Your task to perform on an android device: delete location history Image 0: 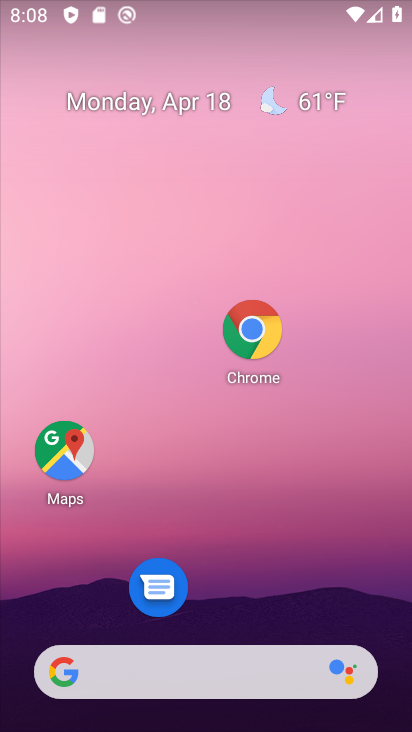
Step 0: drag from (145, 457) to (139, 243)
Your task to perform on an android device: delete location history Image 1: 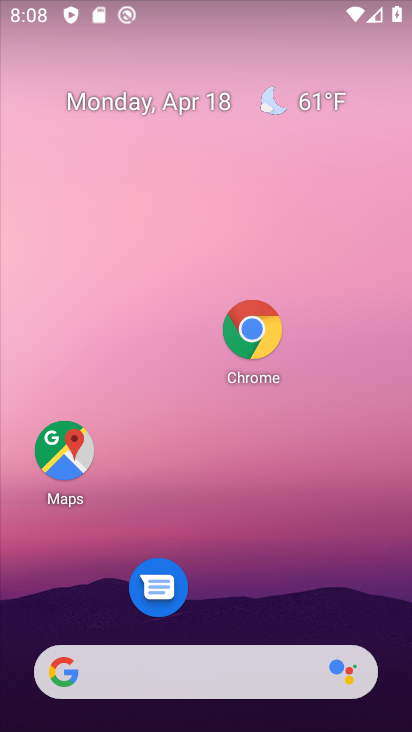
Step 1: drag from (199, 441) to (220, 219)
Your task to perform on an android device: delete location history Image 2: 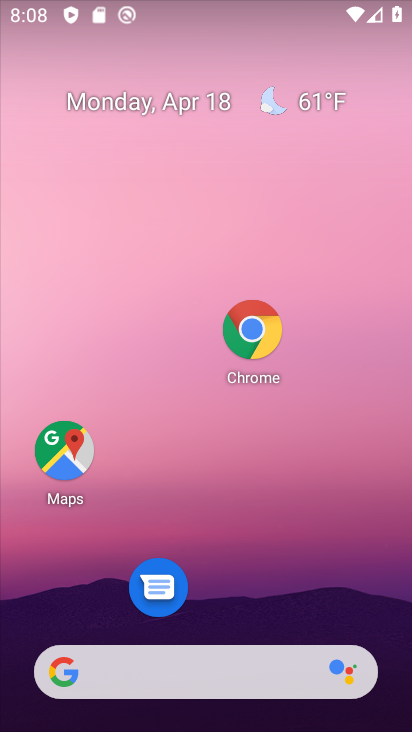
Step 2: drag from (222, 426) to (242, 281)
Your task to perform on an android device: delete location history Image 3: 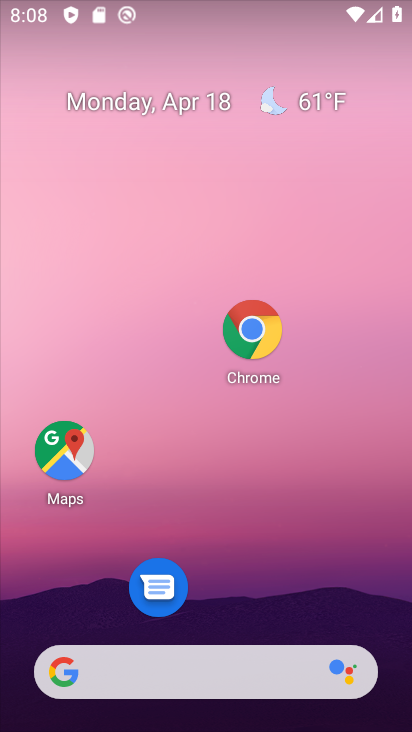
Step 3: drag from (245, 539) to (272, 236)
Your task to perform on an android device: delete location history Image 4: 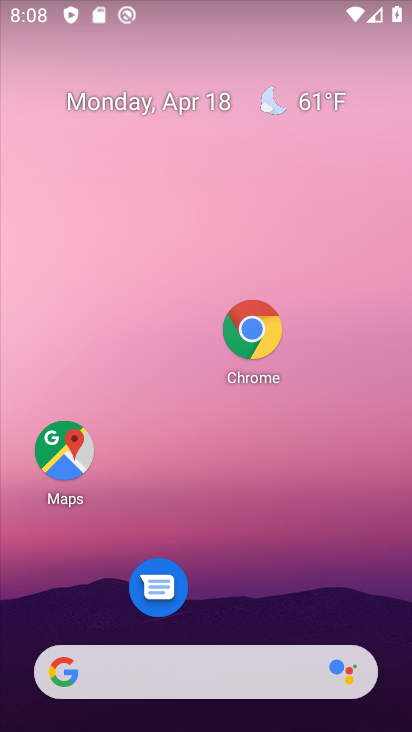
Step 4: drag from (254, 417) to (266, 290)
Your task to perform on an android device: delete location history Image 5: 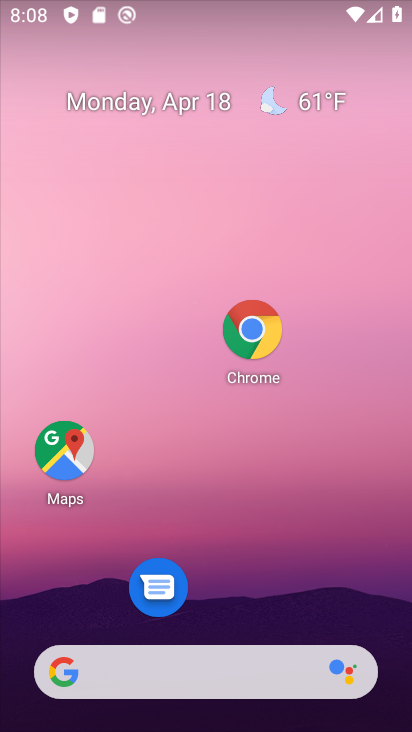
Step 5: drag from (242, 601) to (323, 51)
Your task to perform on an android device: delete location history Image 6: 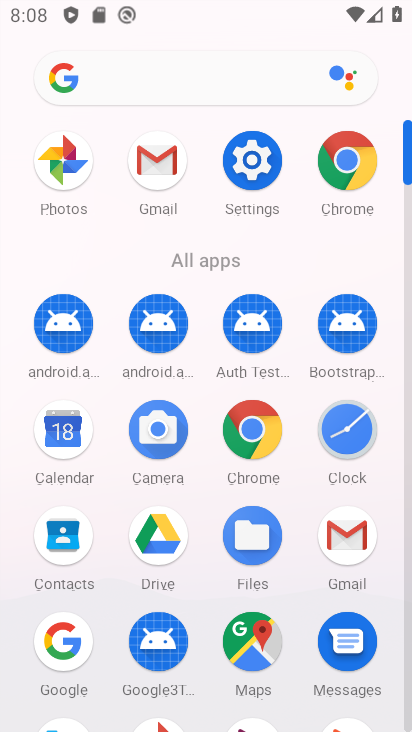
Step 6: click (253, 646)
Your task to perform on an android device: delete location history Image 7: 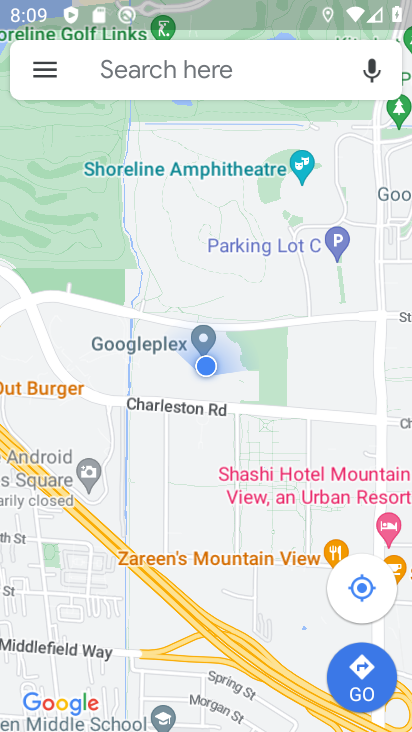
Step 7: click (28, 72)
Your task to perform on an android device: delete location history Image 8: 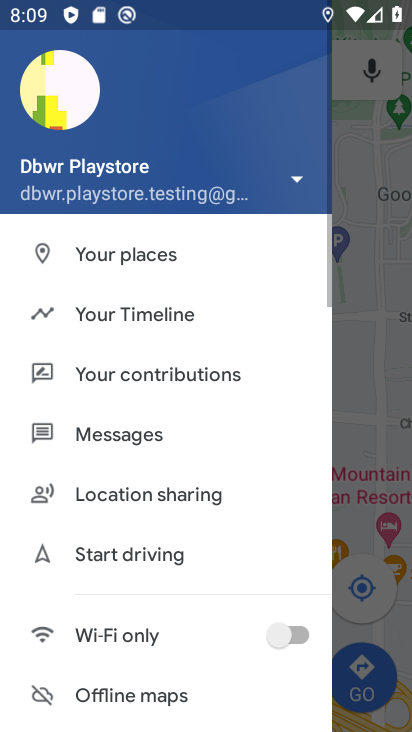
Step 8: click (117, 319)
Your task to perform on an android device: delete location history Image 9: 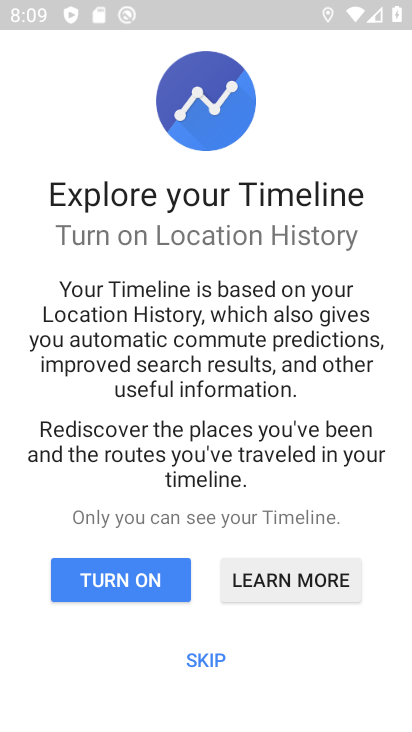
Step 9: click (201, 653)
Your task to perform on an android device: delete location history Image 10: 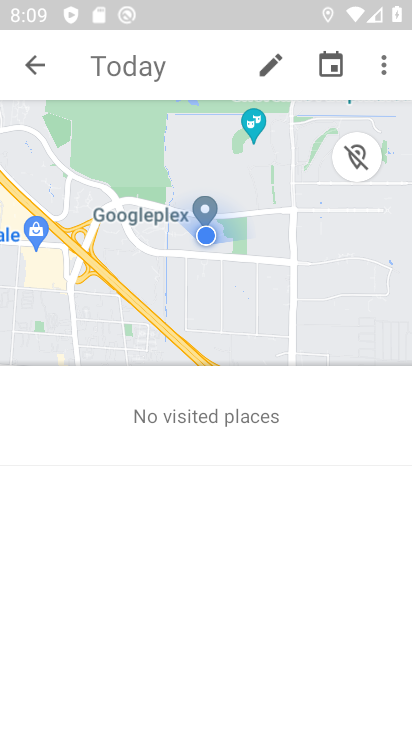
Step 10: click (387, 64)
Your task to perform on an android device: delete location history Image 11: 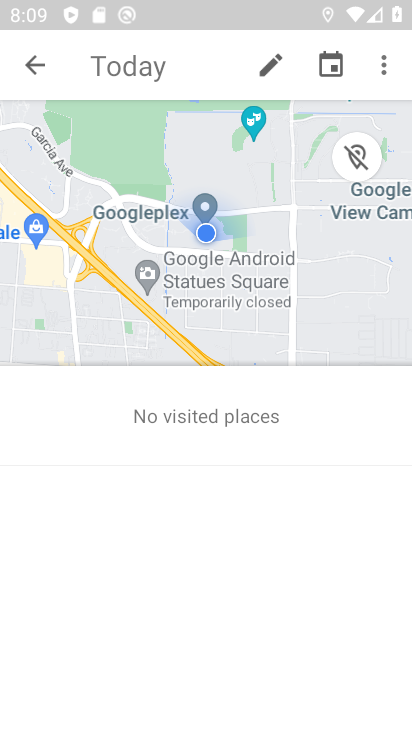
Step 11: click (368, 65)
Your task to perform on an android device: delete location history Image 12: 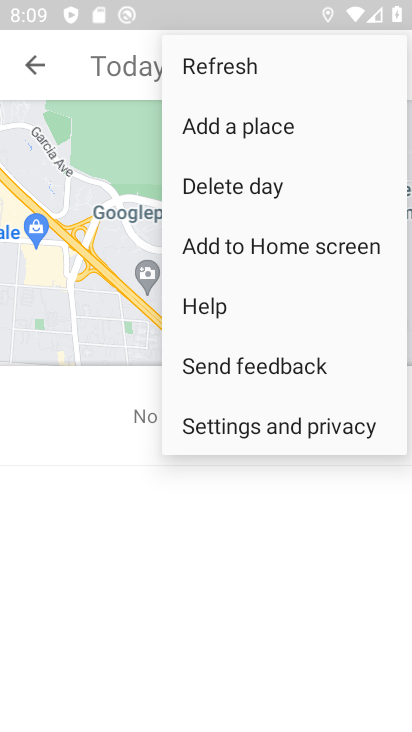
Step 12: click (266, 426)
Your task to perform on an android device: delete location history Image 13: 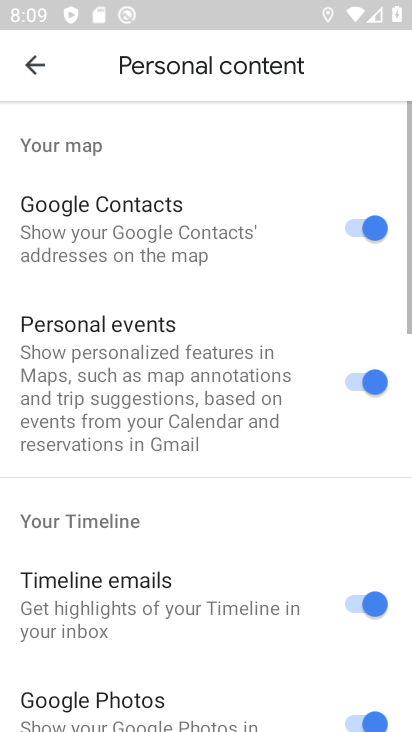
Step 13: drag from (200, 584) to (231, 67)
Your task to perform on an android device: delete location history Image 14: 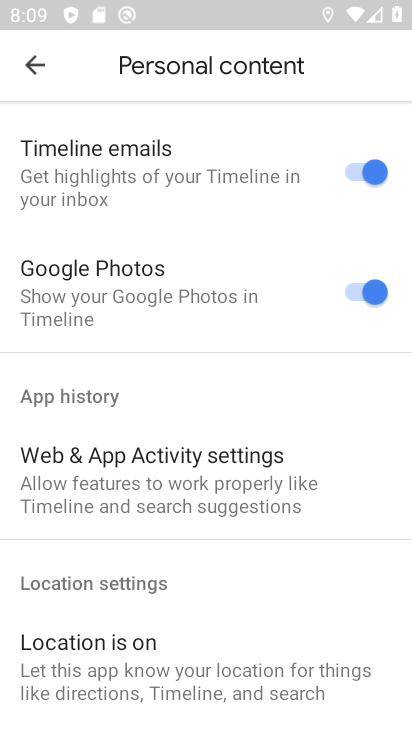
Step 14: drag from (159, 556) to (236, 127)
Your task to perform on an android device: delete location history Image 15: 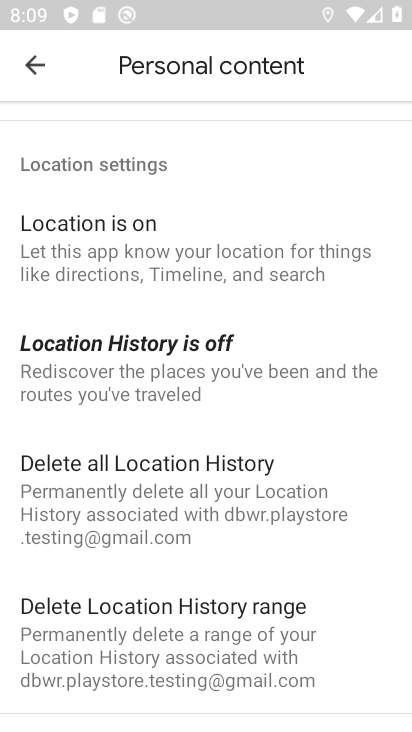
Step 15: click (200, 465)
Your task to perform on an android device: delete location history Image 16: 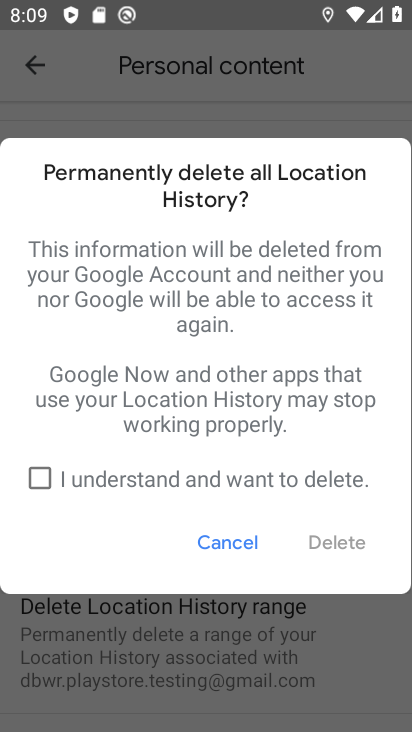
Step 16: click (36, 480)
Your task to perform on an android device: delete location history Image 17: 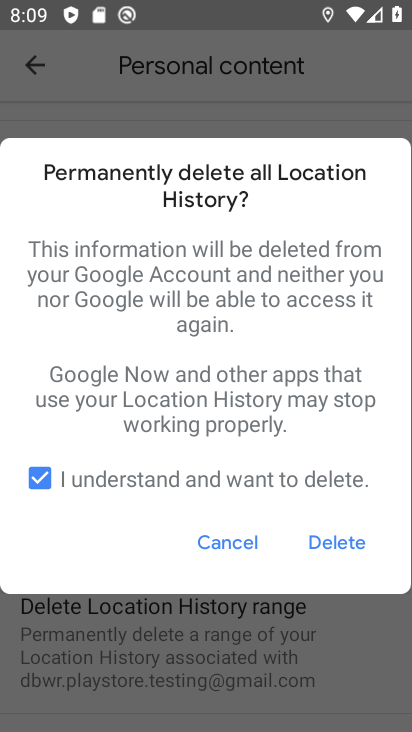
Step 17: click (348, 541)
Your task to perform on an android device: delete location history Image 18: 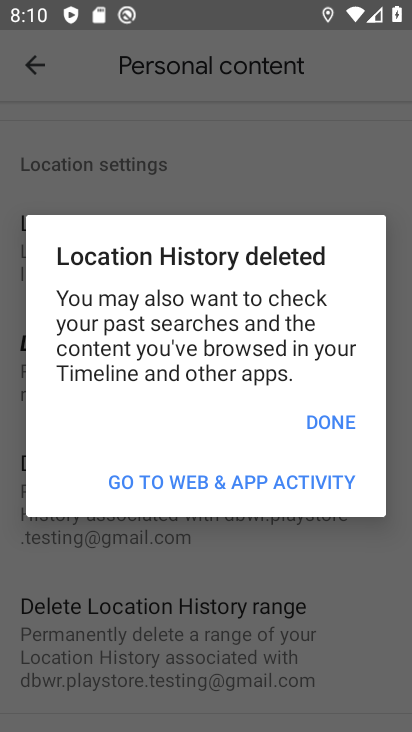
Step 18: click (321, 400)
Your task to perform on an android device: delete location history Image 19: 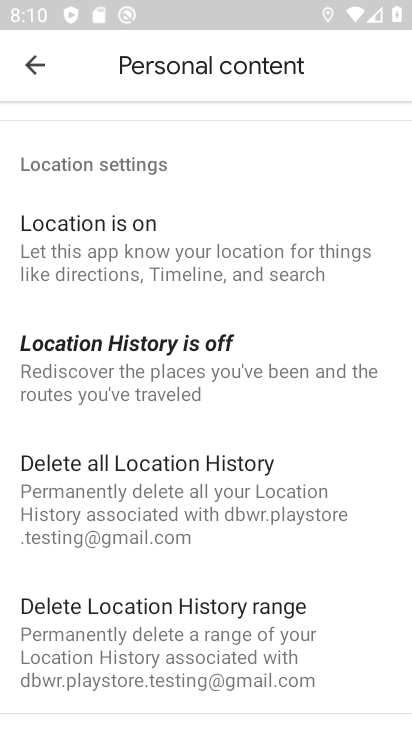
Step 19: task complete